Your task to perform on an android device: Go to Maps Image 0: 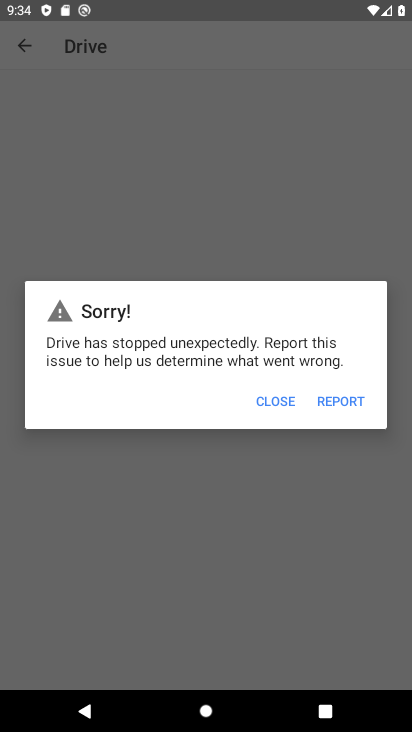
Step 0: press home button
Your task to perform on an android device: Go to Maps Image 1: 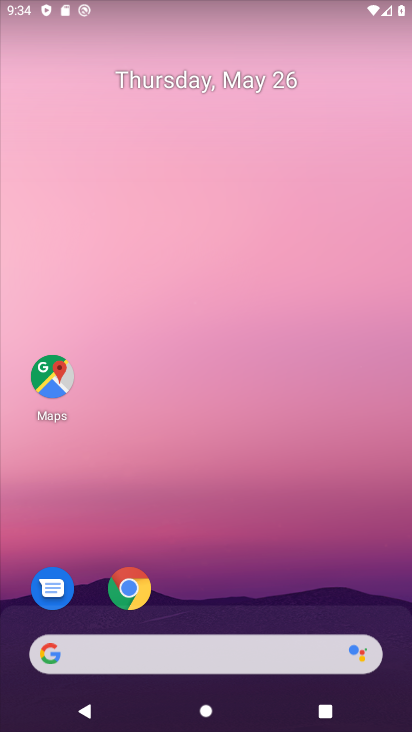
Step 1: drag from (235, 728) to (234, 181)
Your task to perform on an android device: Go to Maps Image 2: 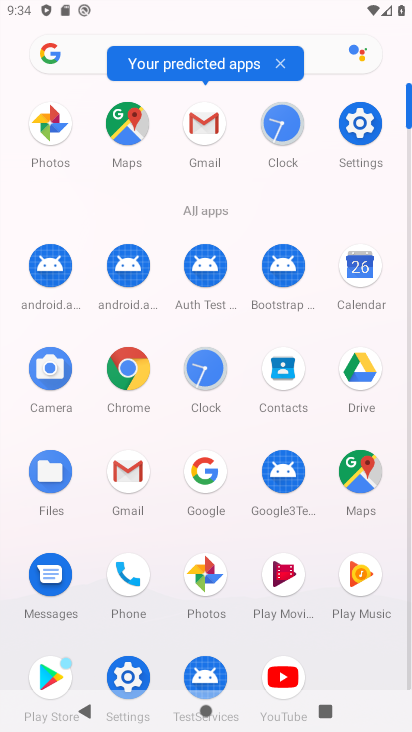
Step 2: click (362, 479)
Your task to perform on an android device: Go to Maps Image 3: 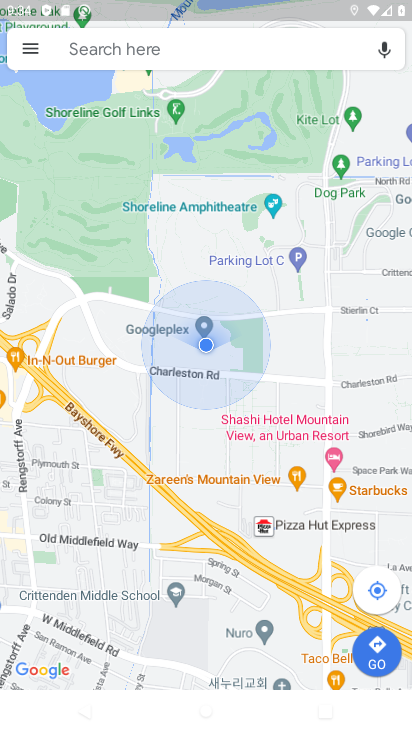
Step 3: task complete